Your task to perform on an android device: Open Yahoo.com Image 0: 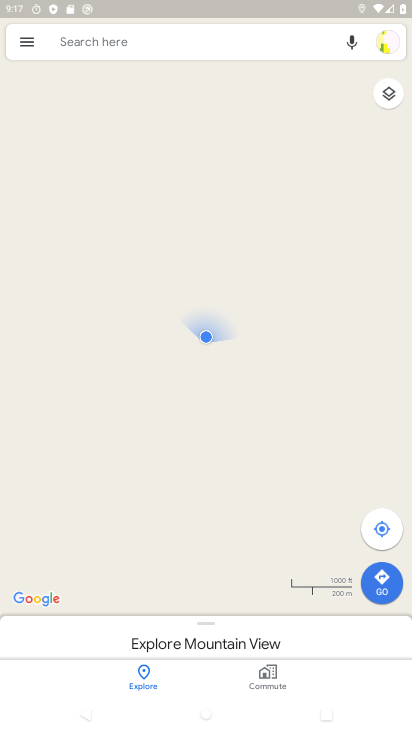
Step 0: press home button
Your task to perform on an android device: Open Yahoo.com Image 1: 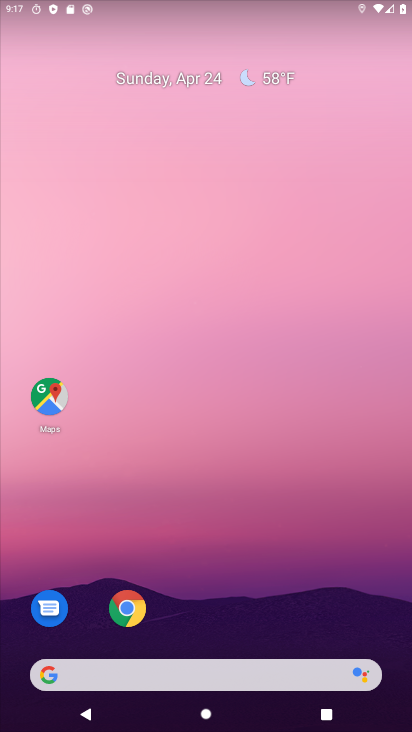
Step 1: drag from (358, 601) to (338, 97)
Your task to perform on an android device: Open Yahoo.com Image 2: 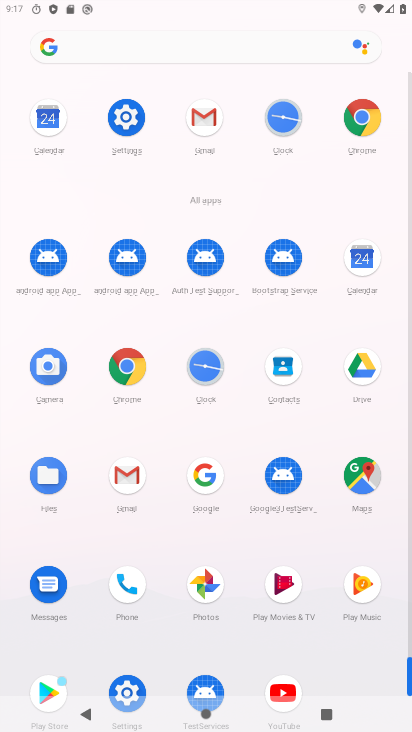
Step 2: click (366, 116)
Your task to perform on an android device: Open Yahoo.com Image 3: 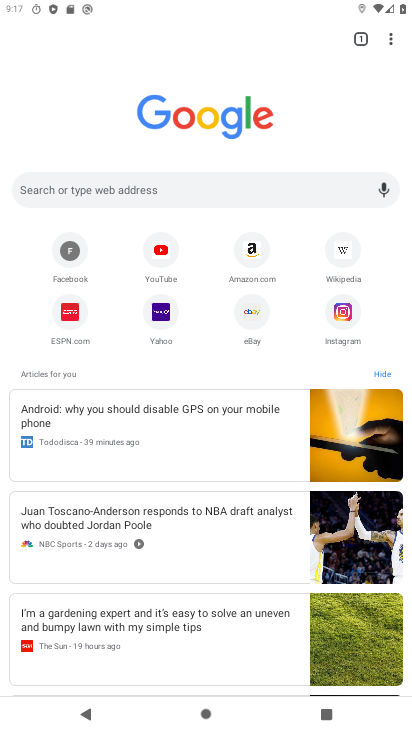
Step 3: click (156, 320)
Your task to perform on an android device: Open Yahoo.com Image 4: 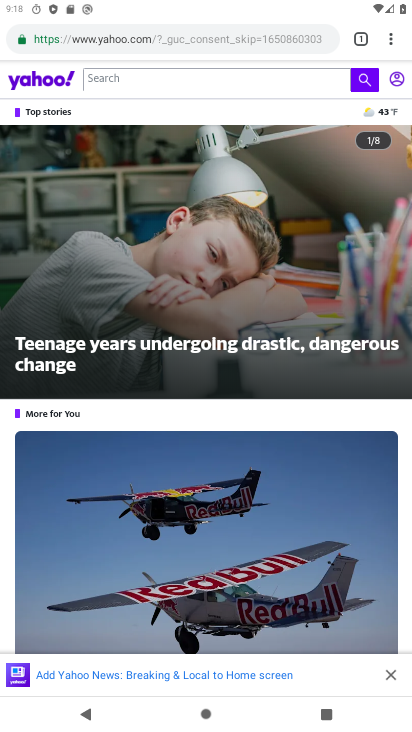
Step 4: task complete